Your task to perform on an android device: turn off notifications settings in the gmail app Image 0: 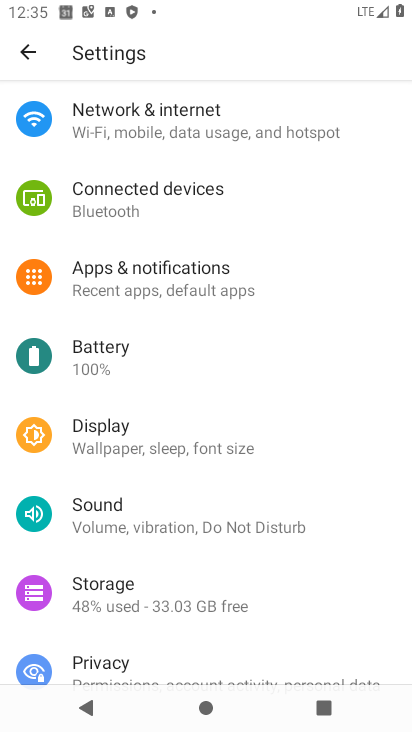
Step 0: press home button
Your task to perform on an android device: turn off notifications settings in the gmail app Image 1: 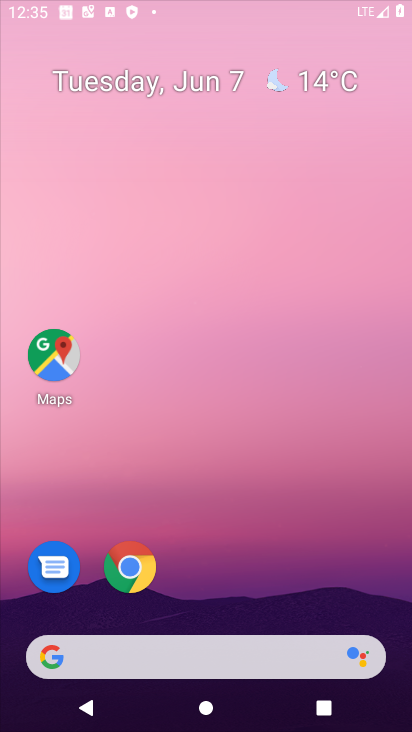
Step 1: drag from (239, 679) to (285, 87)
Your task to perform on an android device: turn off notifications settings in the gmail app Image 2: 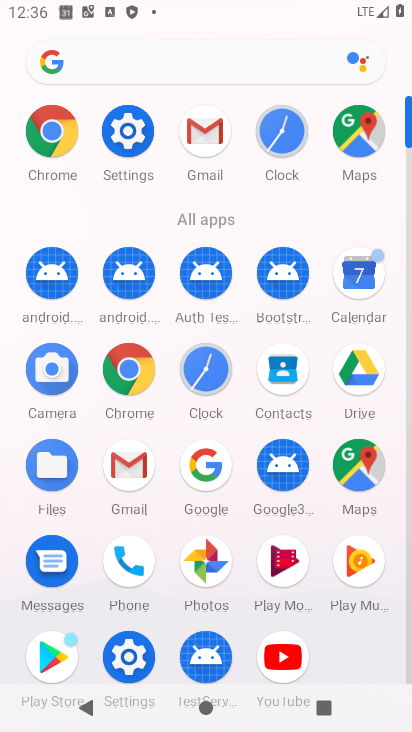
Step 2: click (119, 454)
Your task to perform on an android device: turn off notifications settings in the gmail app Image 3: 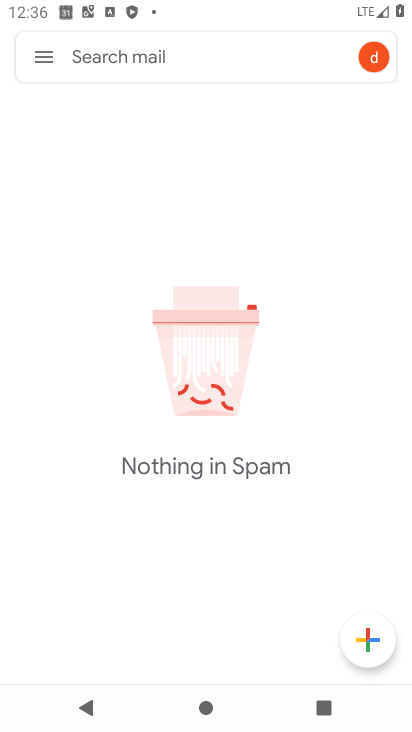
Step 3: click (42, 51)
Your task to perform on an android device: turn off notifications settings in the gmail app Image 4: 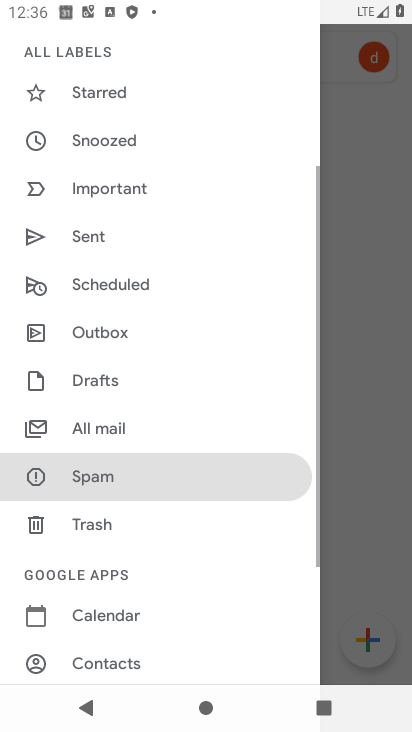
Step 4: drag from (152, 610) to (249, 138)
Your task to perform on an android device: turn off notifications settings in the gmail app Image 5: 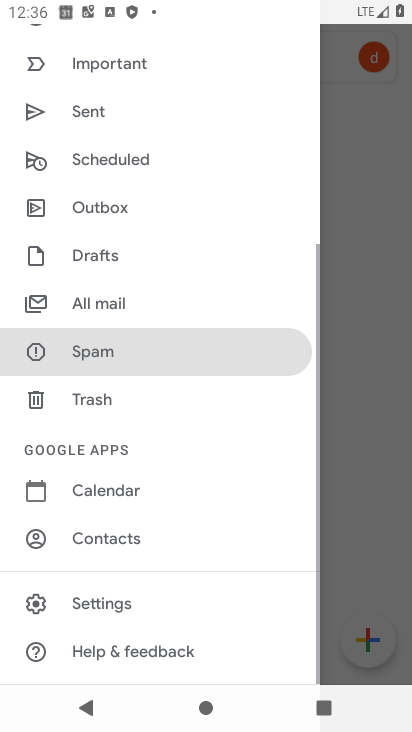
Step 5: click (129, 603)
Your task to perform on an android device: turn off notifications settings in the gmail app Image 6: 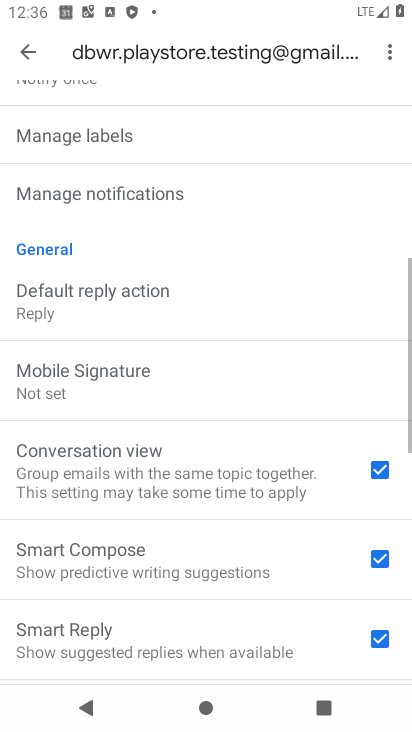
Step 6: click (167, 184)
Your task to perform on an android device: turn off notifications settings in the gmail app Image 7: 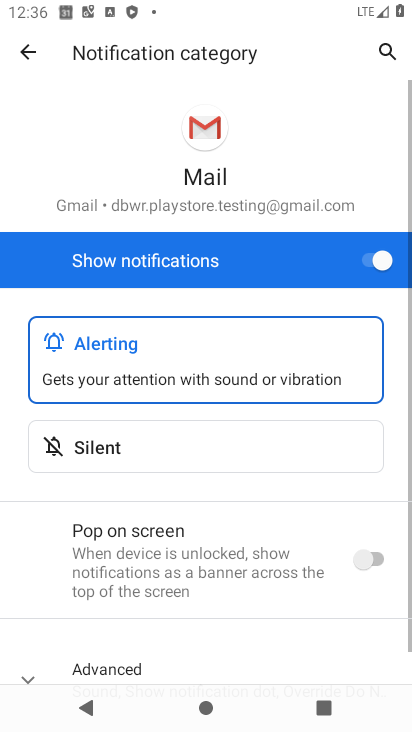
Step 7: click (382, 257)
Your task to perform on an android device: turn off notifications settings in the gmail app Image 8: 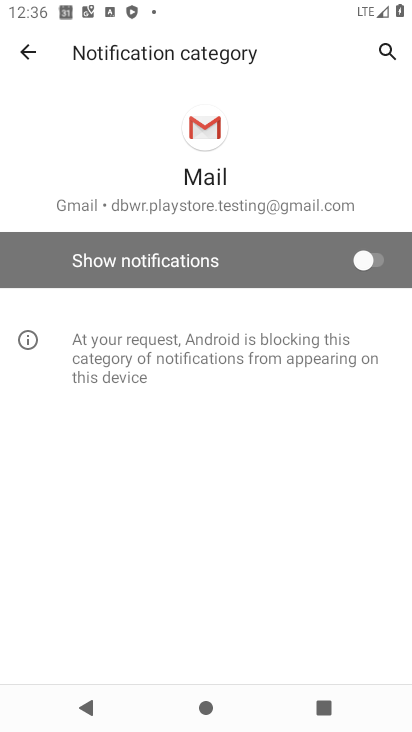
Step 8: task complete